Your task to perform on an android device: Go to Google maps Image 0: 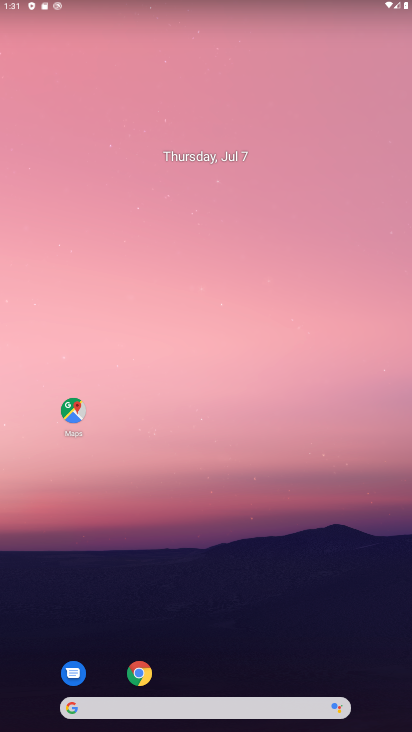
Step 0: click (68, 410)
Your task to perform on an android device: Go to Google maps Image 1: 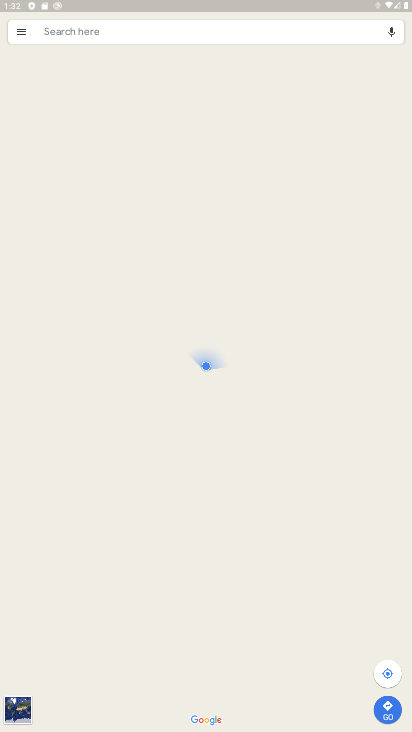
Step 1: task complete